Your task to perform on an android device: Is it going to rain this weekend? Image 0: 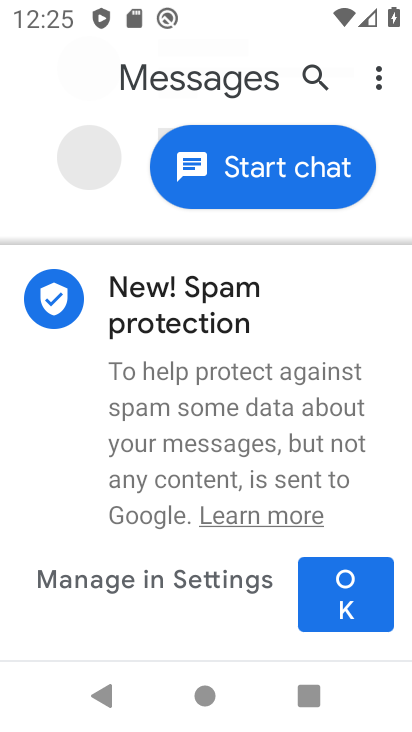
Step 0: press home button
Your task to perform on an android device: Is it going to rain this weekend? Image 1: 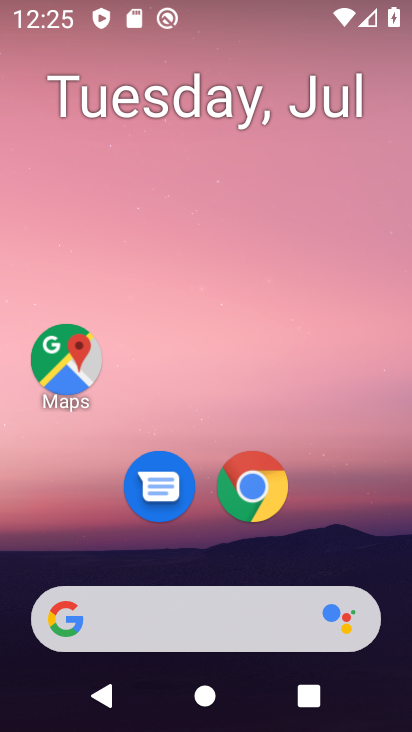
Step 1: click (207, 613)
Your task to perform on an android device: Is it going to rain this weekend? Image 2: 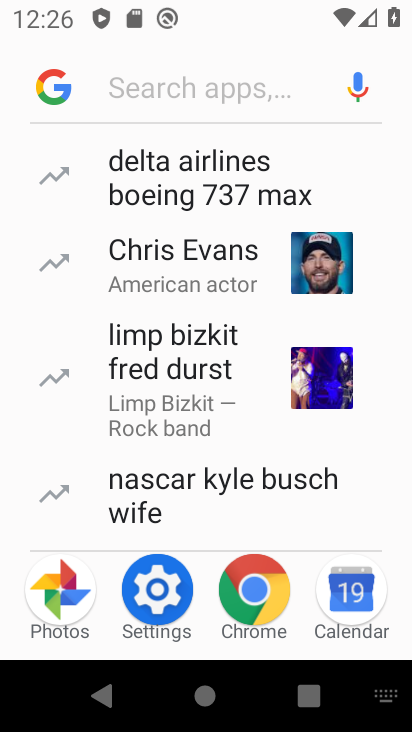
Step 2: type "weather"
Your task to perform on an android device: Is it going to rain this weekend? Image 3: 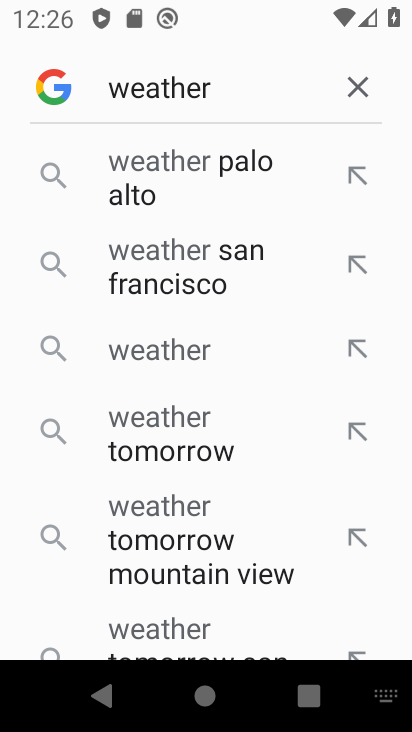
Step 3: click (207, 360)
Your task to perform on an android device: Is it going to rain this weekend? Image 4: 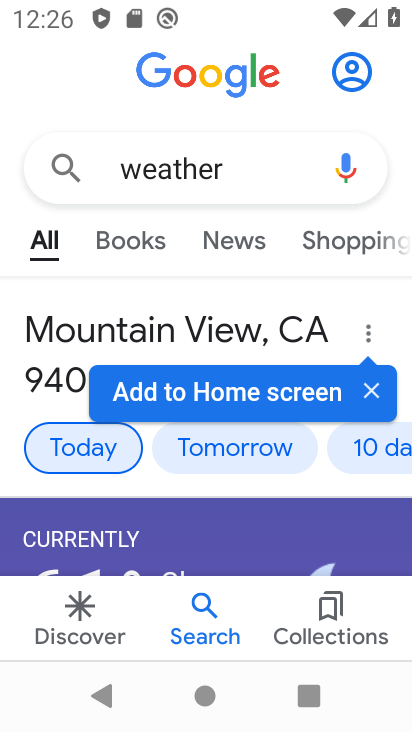
Step 4: click (367, 441)
Your task to perform on an android device: Is it going to rain this weekend? Image 5: 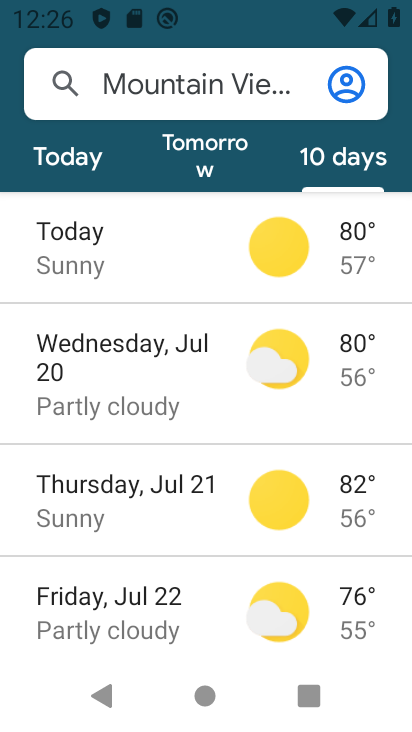
Step 5: drag from (206, 550) to (210, 391)
Your task to perform on an android device: Is it going to rain this weekend? Image 6: 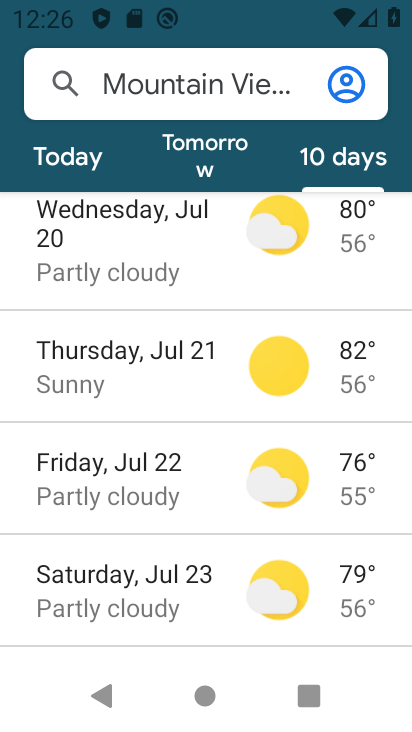
Step 6: drag from (206, 520) to (205, 415)
Your task to perform on an android device: Is it going to rain this weekend? Image 7: 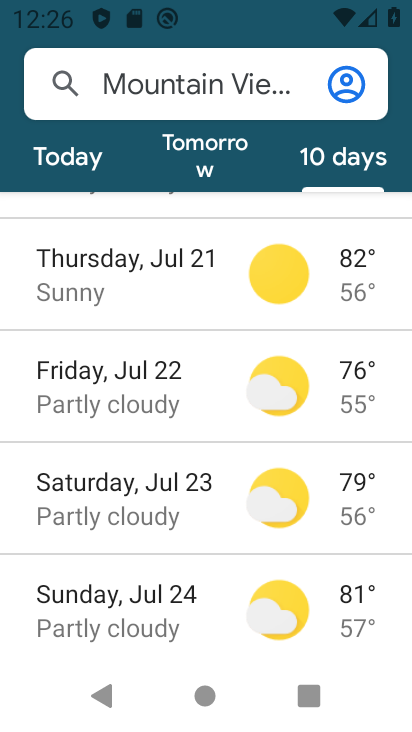
Step 7: drag from (208, 598) to (202, 455)
Your task to perform on an android device: Is it going to rain this weekend? Image 8: 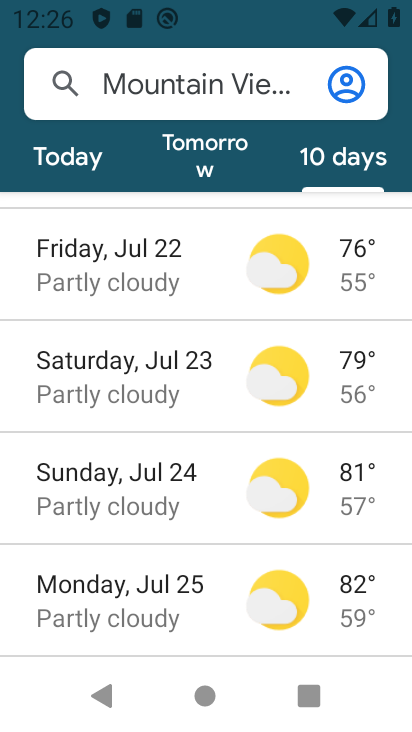
Step 8: drag from (230, 608) to (256, 443)
Your task to perform on an android device: Is it going to rain this weekend? Image 9: 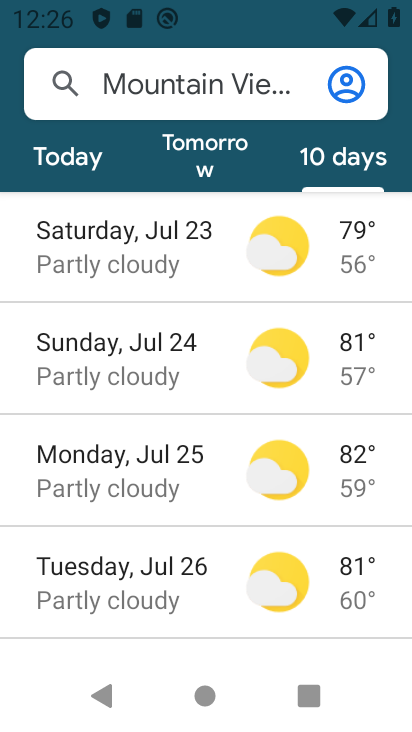
Step 9: drag from (215, 561) to (219, 440)
Your task to perform on an android device: Is it going to rain this weekend? Image 10: 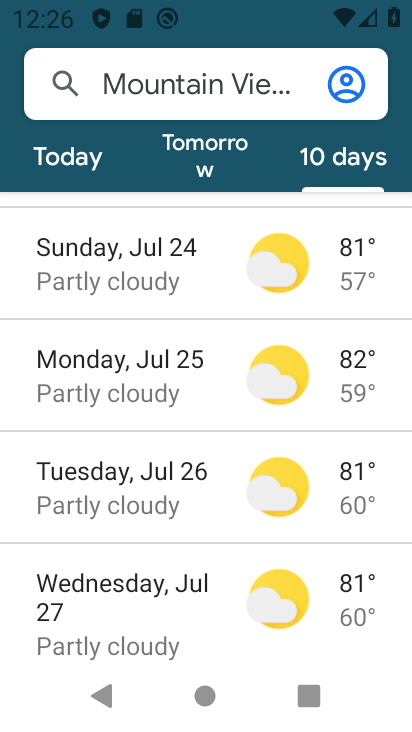
Step 10: drag from (212, 555) to (211, 446)
Your task to perform on an android device: Is it going to rain this weekend? Image 11: 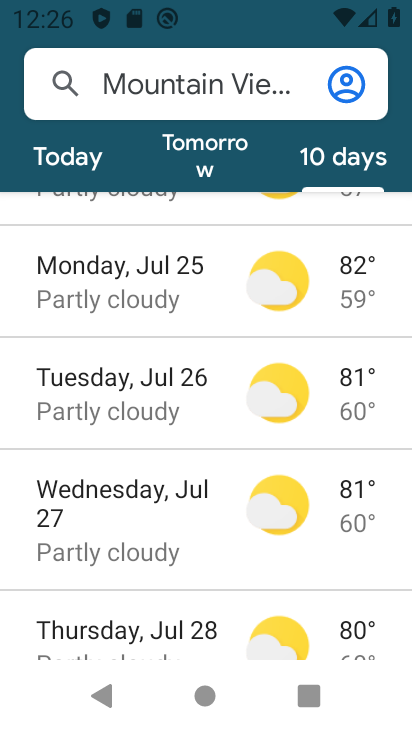
Step 11: drag from (225, 354) to (225, 440)
Your task to perform on an android device: Is it going to rain this weekend? Image 12: 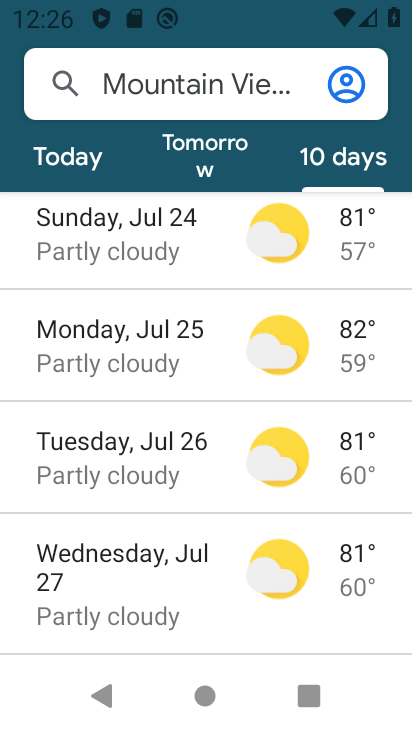
Step 12: drag from (213, 292) to (220, 429)
Your task to perform on an android device: Is it going to rain this weekend? Image 13: 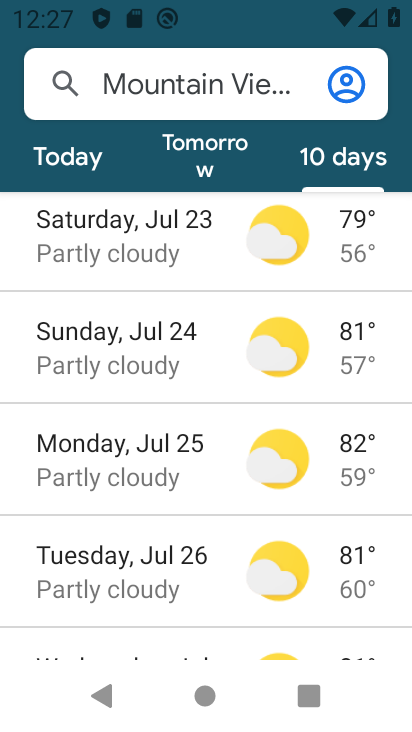
Step 13: click (142, 352)
Your task to perform on an android device: Is it going to rain this weekend? Image 14: 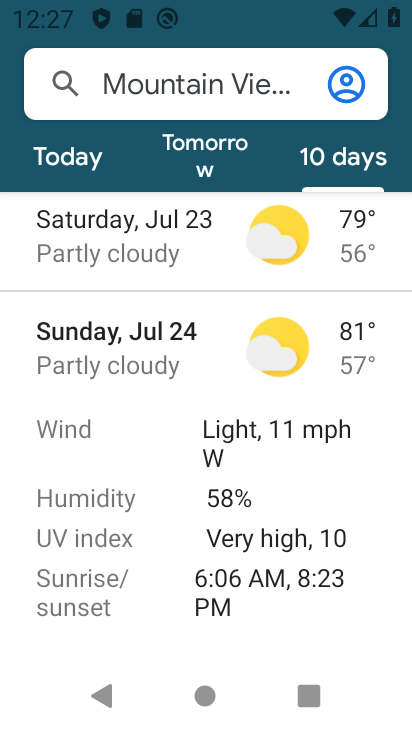
Step 14: task complete